Your task to perform on an android device: View the shopping cart on costco.com. Add "macbook pro 13 inch" to the cart on costco.com, then select checkout. Image 0: 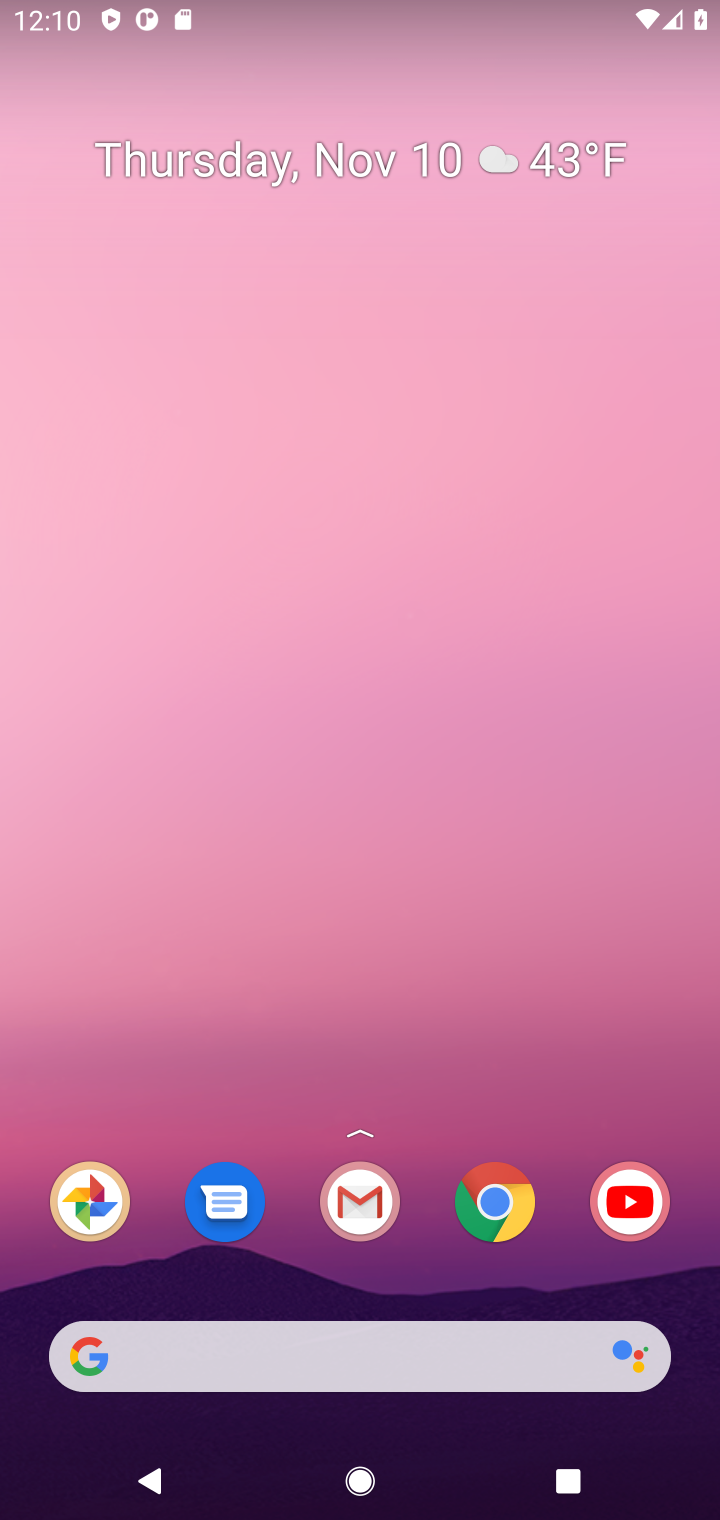
Step 0: click (505, 1204)
Your task to perform on an android device: View the shopping cart on costco.com. Add "macbook pro 13 inch" to the cart on costco.com, then select checkout. Image 1: 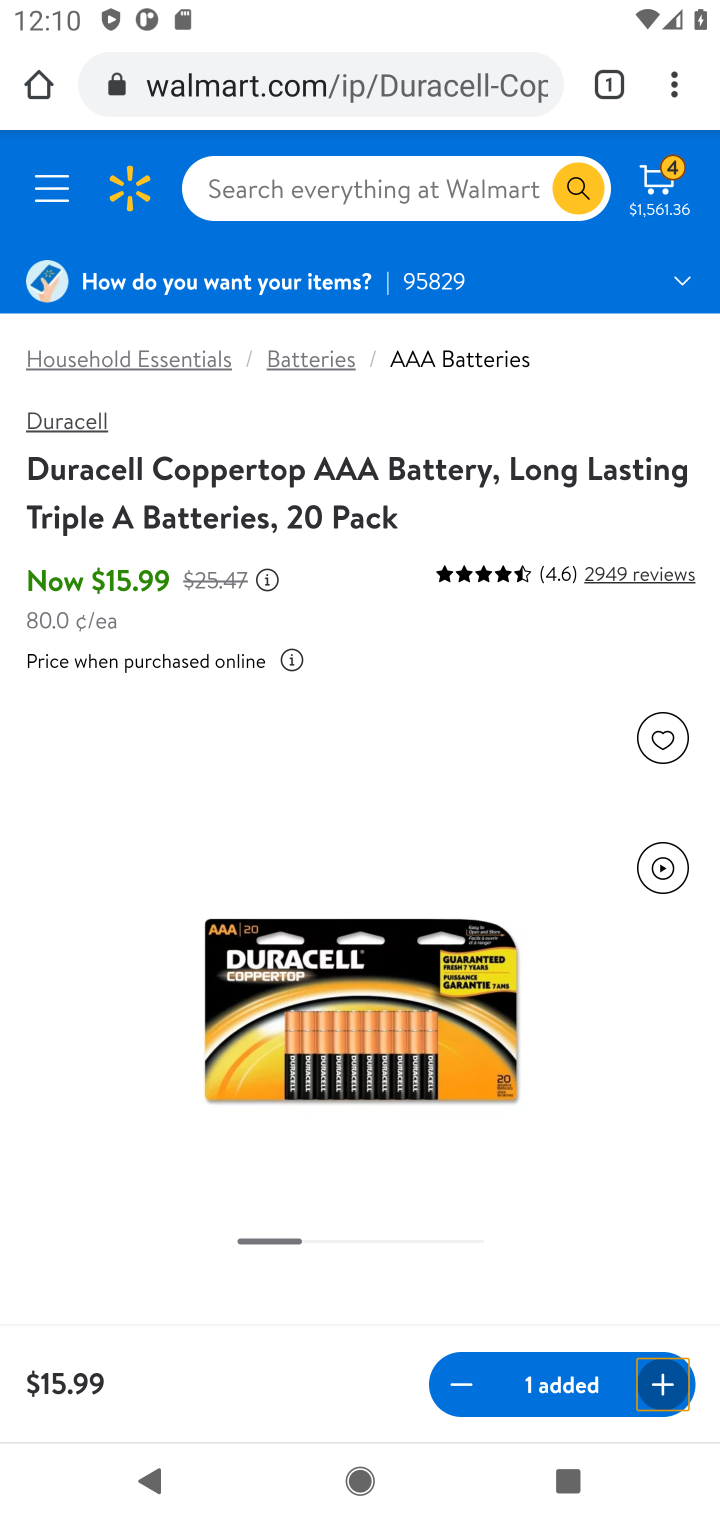
Step 1: click (40, 85)
Your task to perform on an android device: View the shopping cart on costco.com. Add "macbook pro 13 inch" to the cart on costco.com, then select checkout. Image 2: 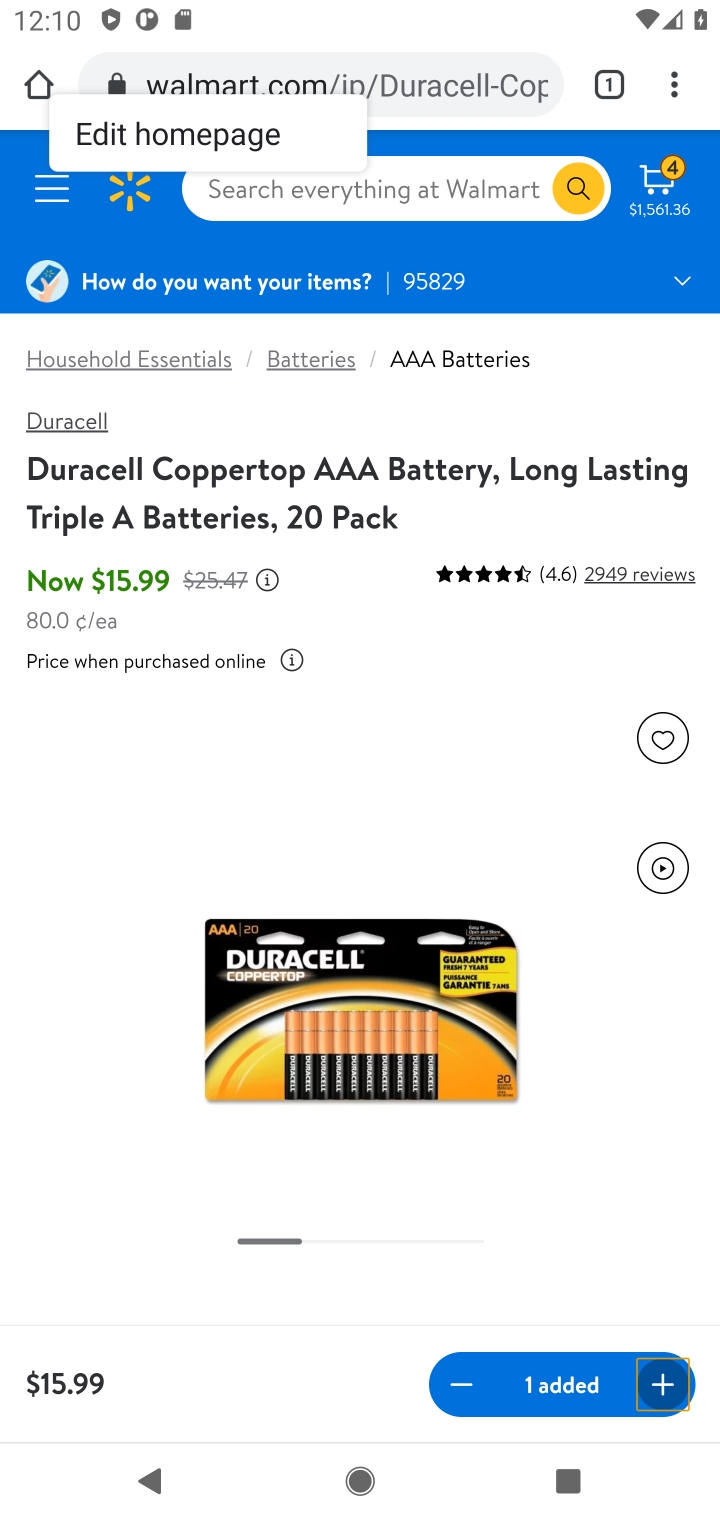
Step 2: click (40, 85)
Your task to perform on an android device: View the shopping cart on costco.com. Add "macbook pro 13 inch" to the cart on costco.com, then select checkout. Image 3: 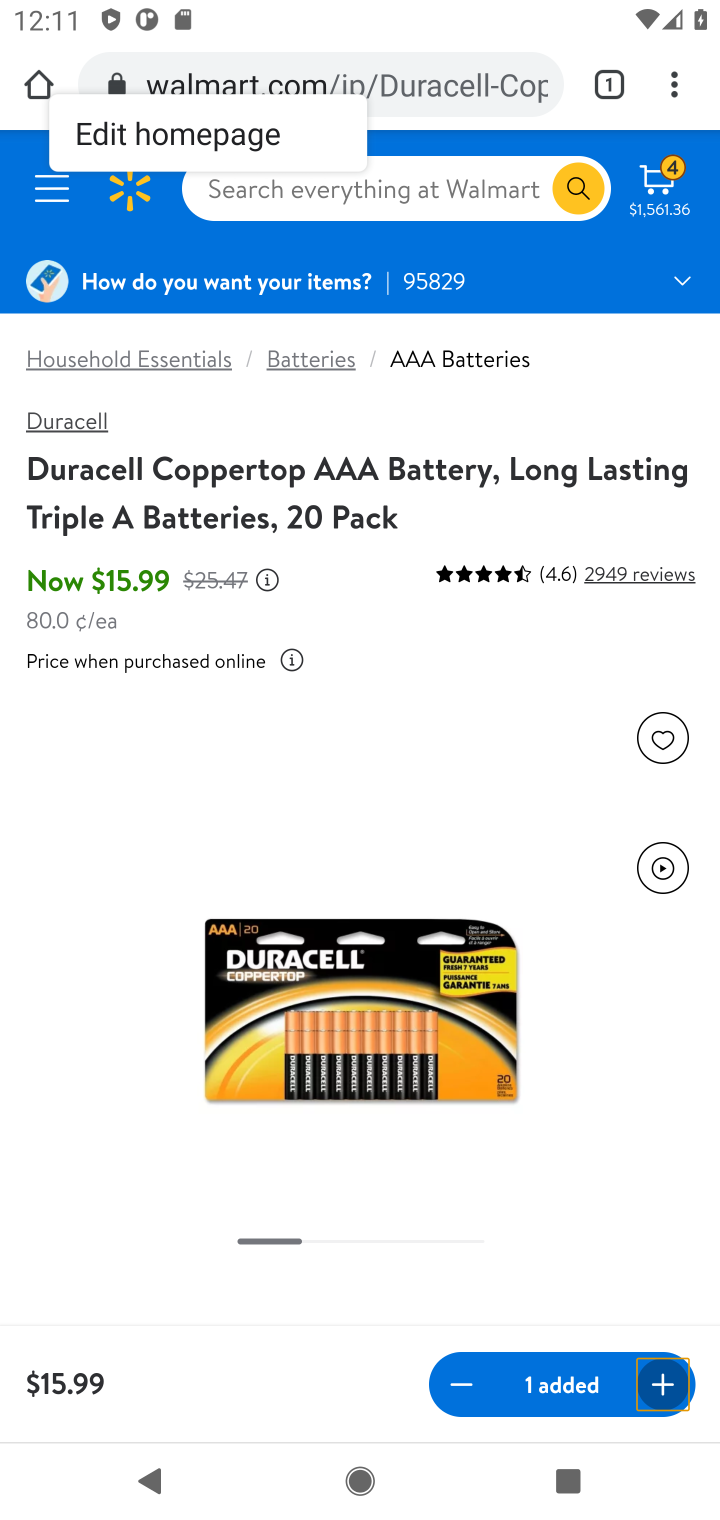
Step 3: click (430, 79)
Your task to perform on an android device: View the shopping cart on costco.com. Add "macbook pro 13 inch" to the cart on costco.com, then select checkout. Image 4: 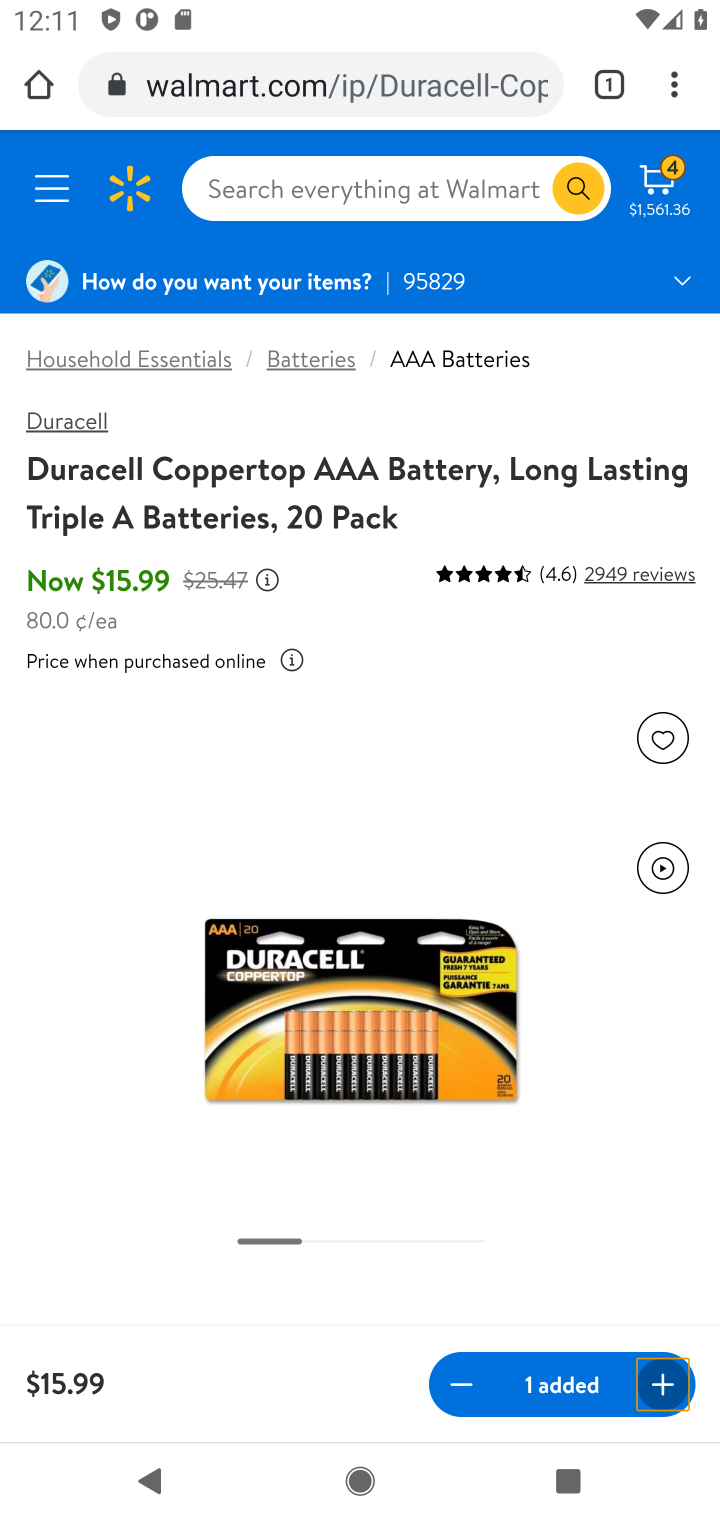
Step 4: click (430, 79)
Your task to perform on an android device: View the shopping cart on costco.com. Add "macbook pro 13 inch" to the cart on costco.com, then select checkout. Image 5: 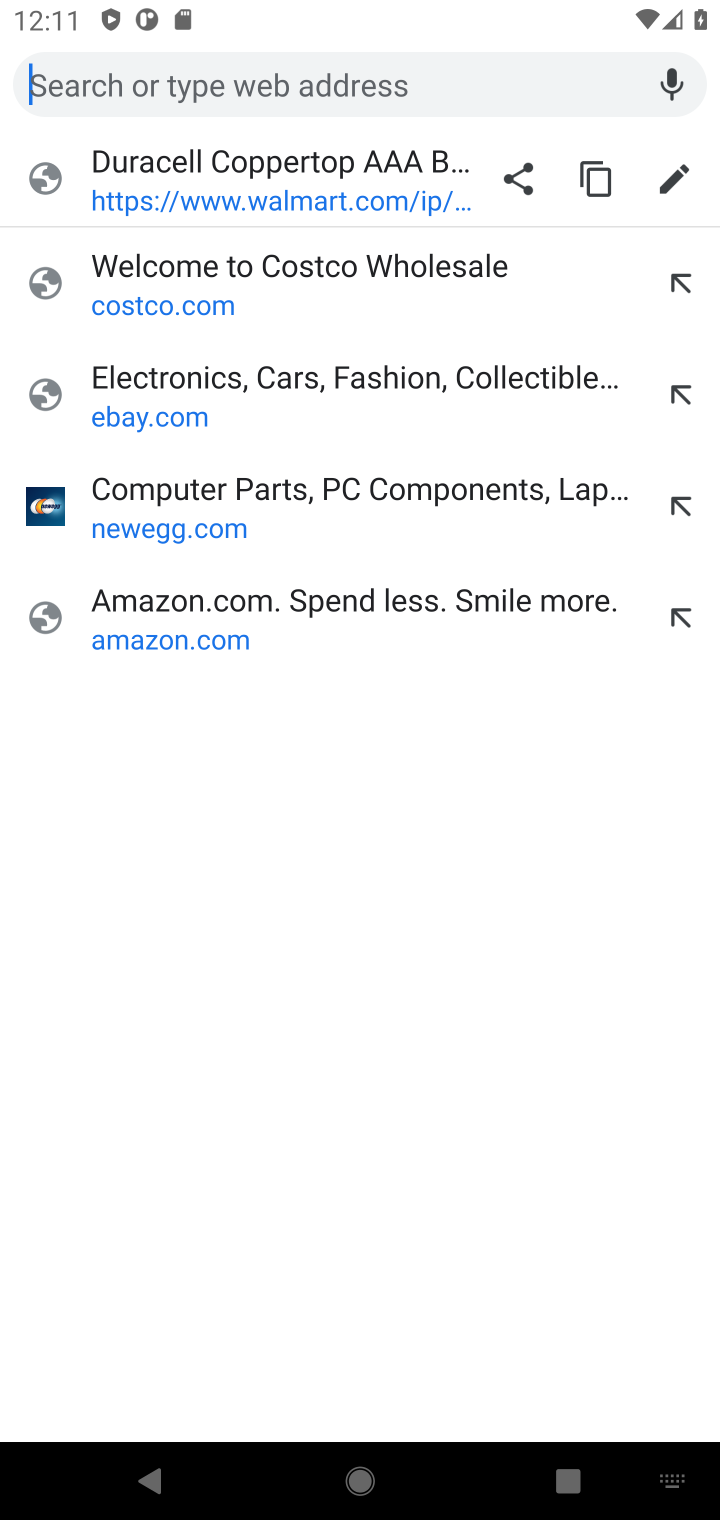
Step 5: click (289, 278)
Your task to perform on an android device: View the shopping cart on costco.com. Add "macbook pro 13 inch" to the cart on costco.com, then select checkout. Image 6: 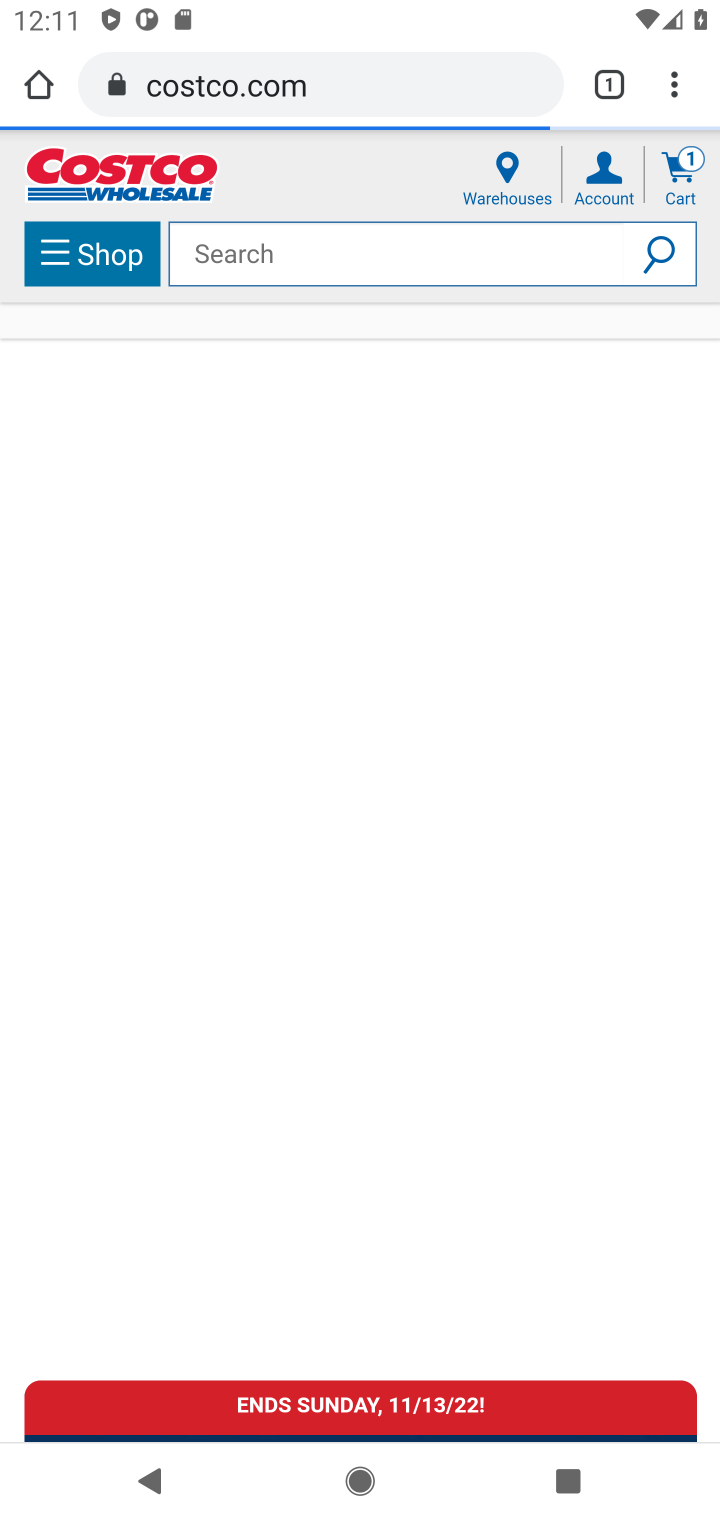
Step 6: click (676, 175)
Your task to perform on an android device: View the shopping cart on costco.com. Add "macbook pro 13 inch" to the cart on costco.com, then select checkout. Image 7: 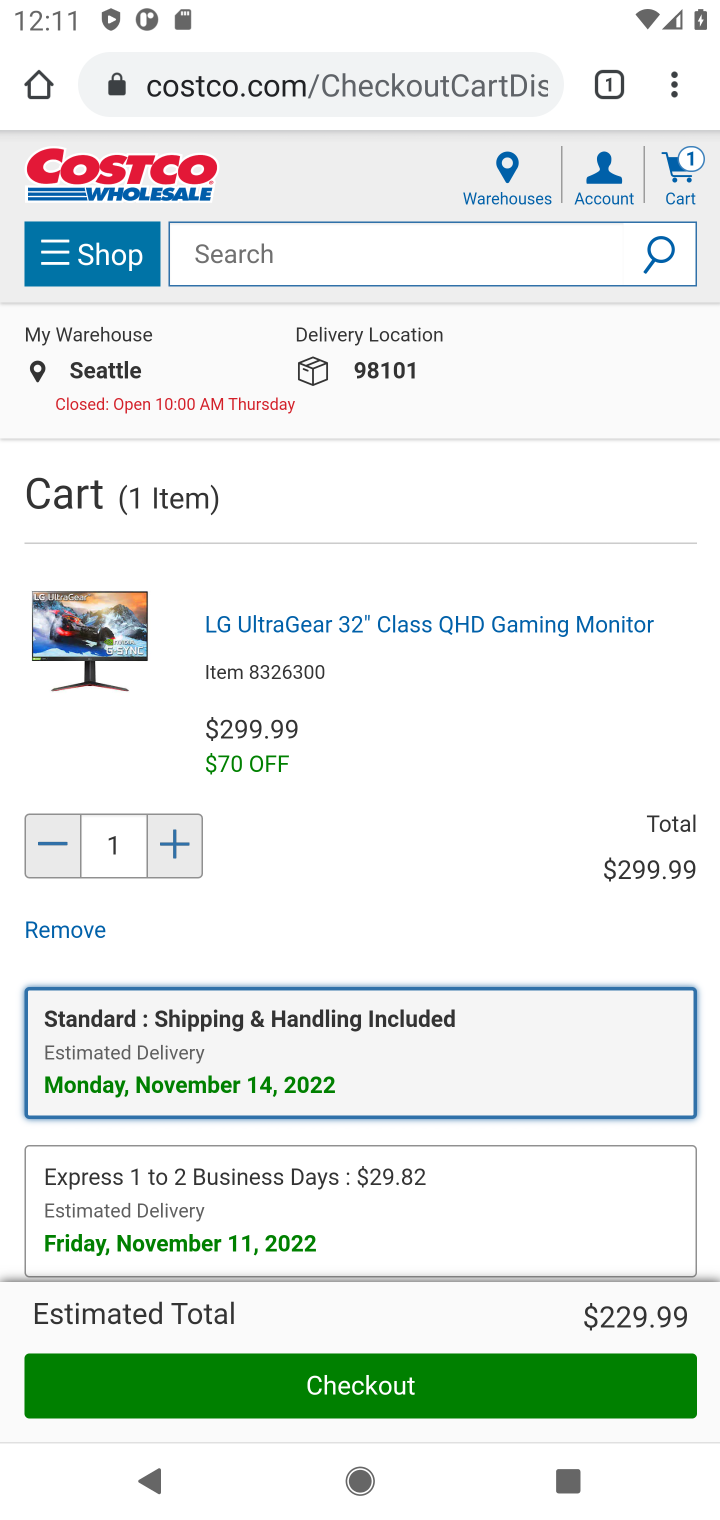
Step 7: click (483, 244)
Your task to perform on an android device: View the shopping cart on costco.com. Add "macbook pro 13 inch" to the cart on costco.com, then select checkout. Image 8: 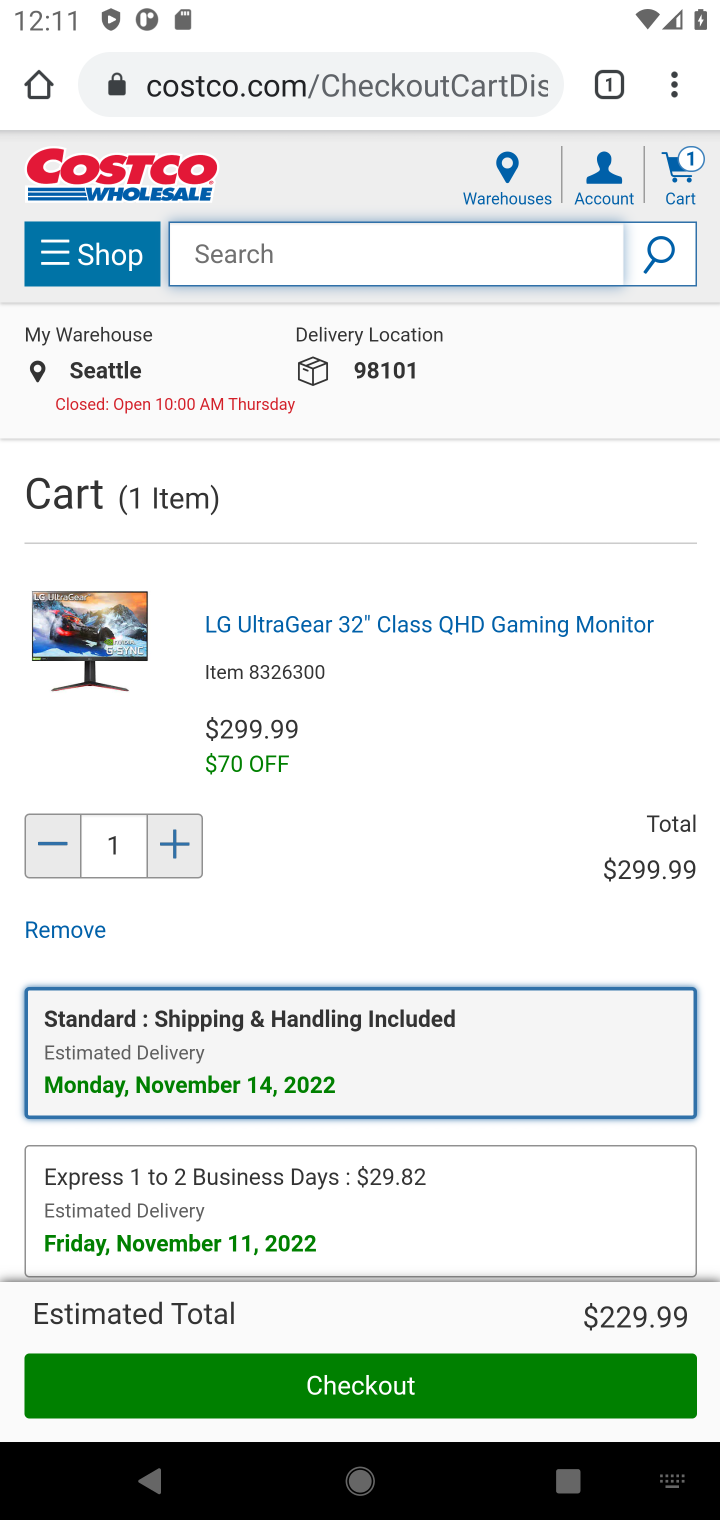
Step 8: type "macbook pro 13 inch"
Your task to perform on an android device: View the shopping cart on costco.com. Add "macbook pro 13 inch" to the cart on costco.com, then select checkout. Image 9: 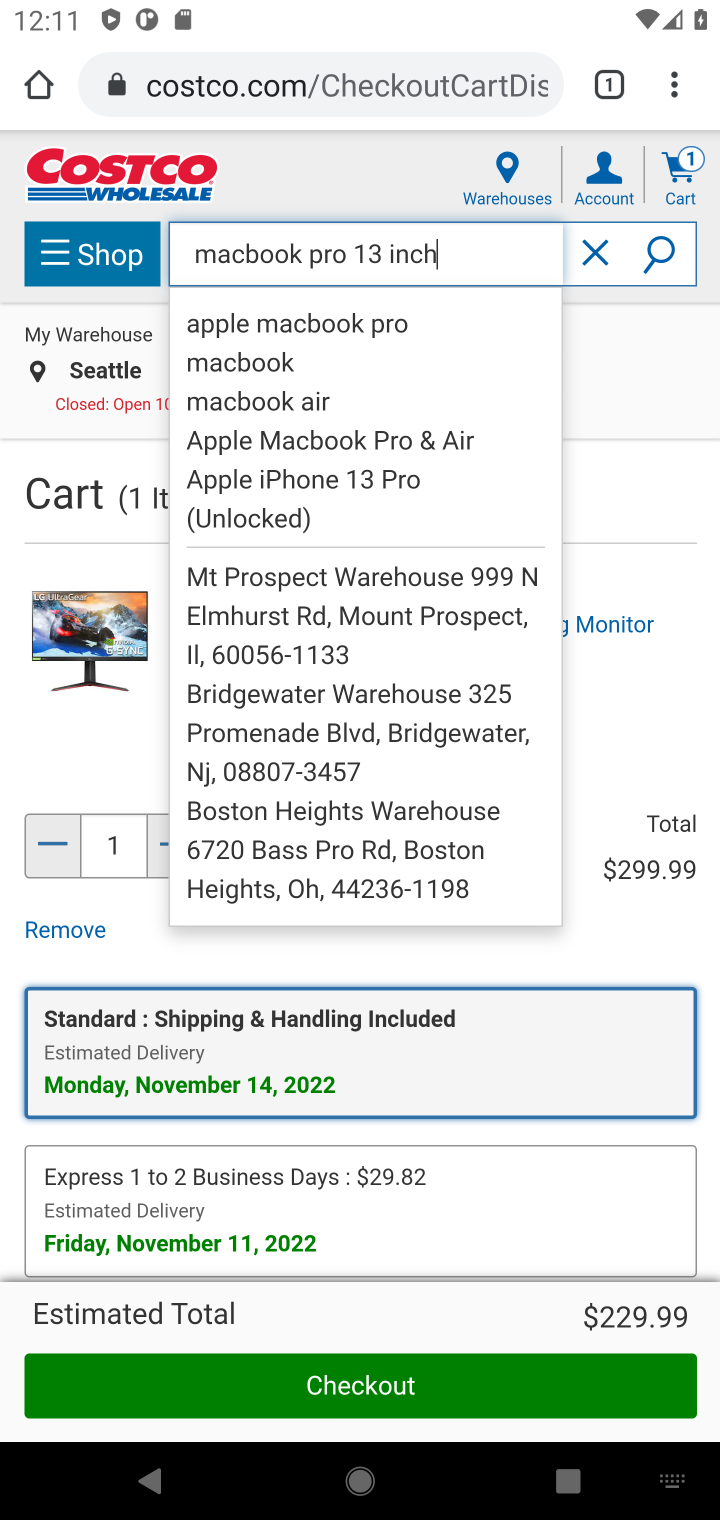
Step 9: click (642, 375)
Your task to perform on an android device: View the shopping cart on costco.com. Add "macbook pro 13 inch" to the cart on costco.com, then select checkout. Image 10: 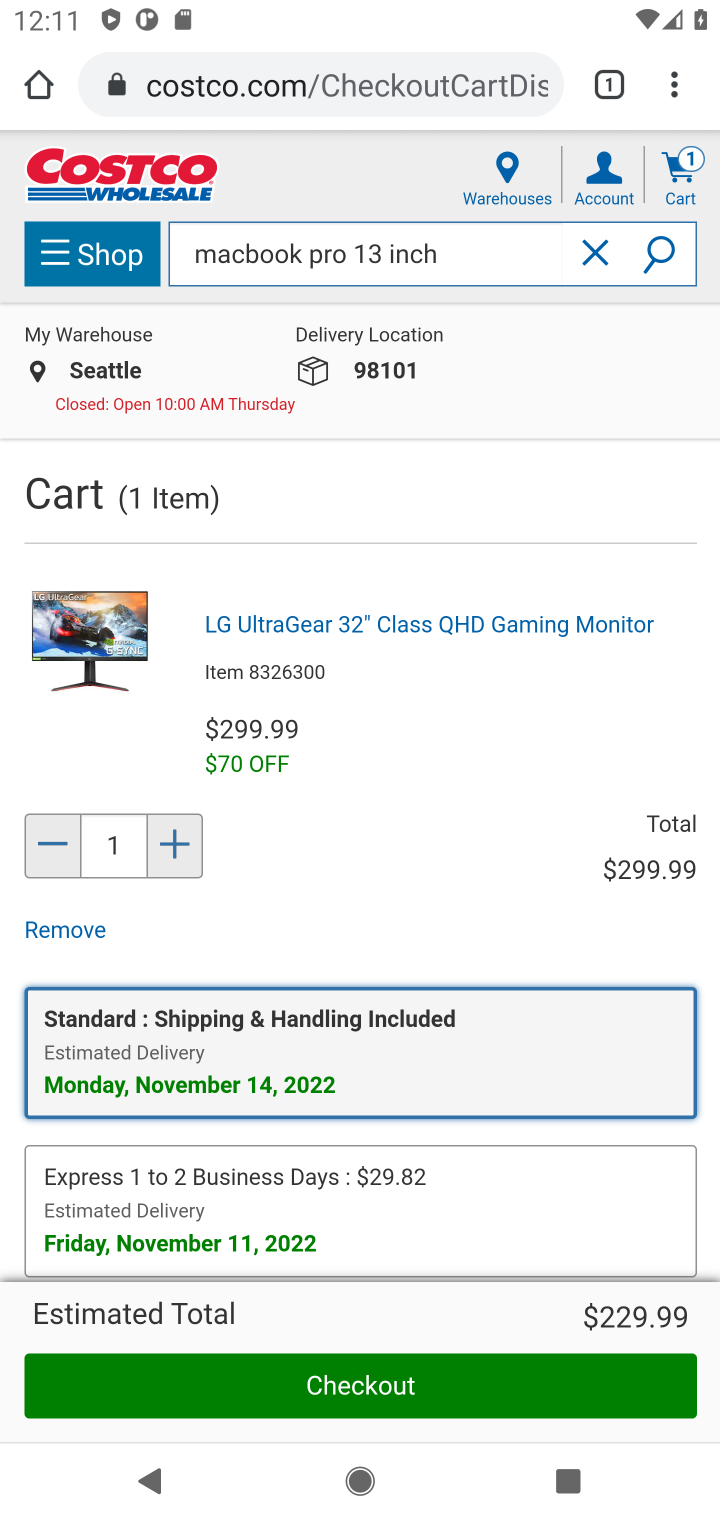
Step 10: click (618, 381)
Your task to perform on an android device: View the shopping cart on costco.com. Add "macbook pro 13 inch" to the cart on costco.com, then select checkout. Image 11: 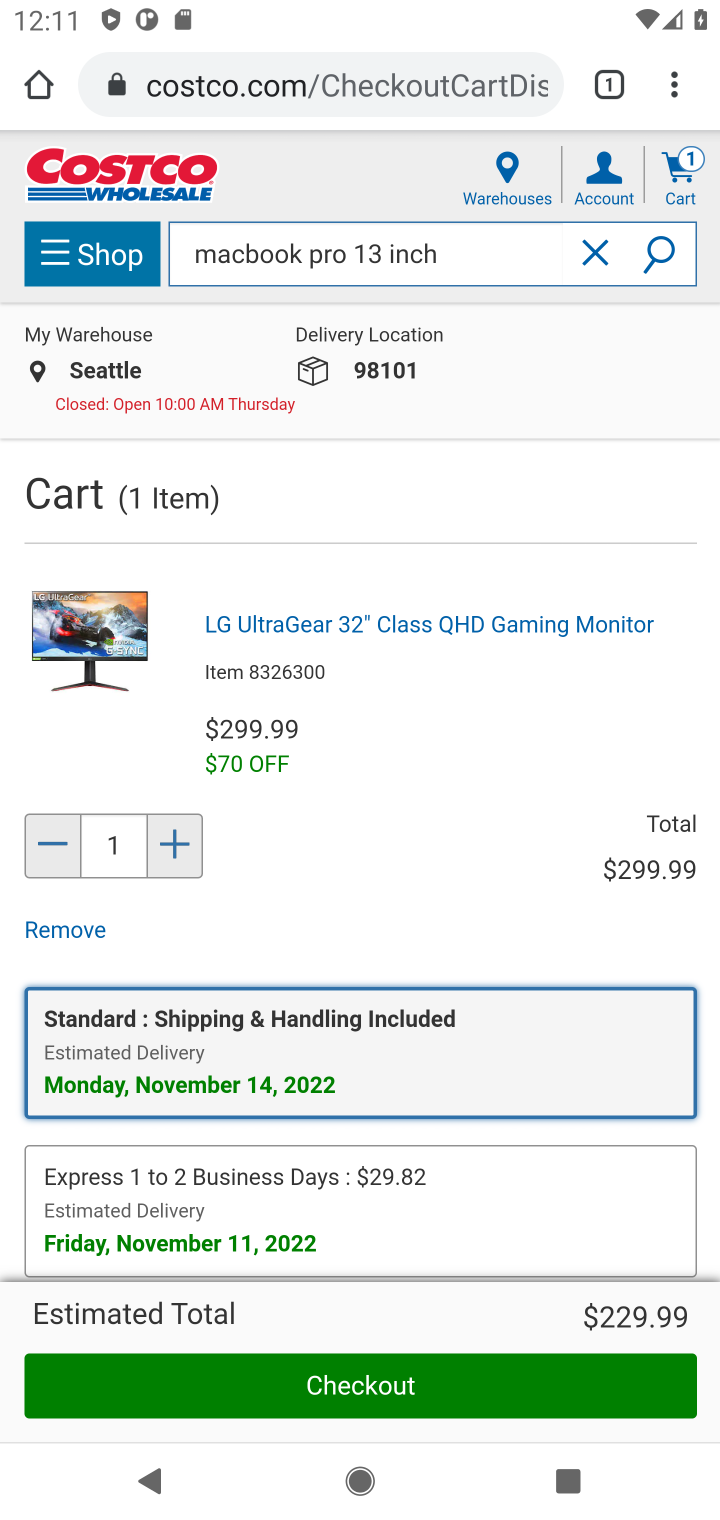
Step 11: task complete